Your task to perform on an android device: add a label to a message in the gmail app Image 0: 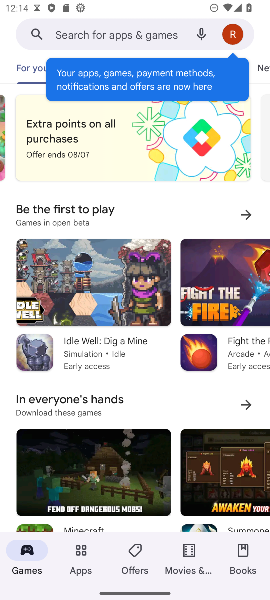
Step 0: press home button
Your task to perform on an android device: add a label to a message in the gmail app Image 1: 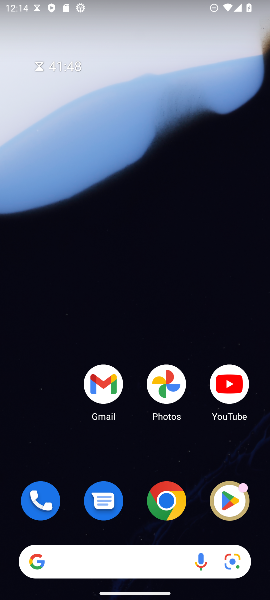
Step 1: drag from (130, 491) to (150, 19)
Your task to perform on an android device: add a label to a message in the gmail app Image 2: 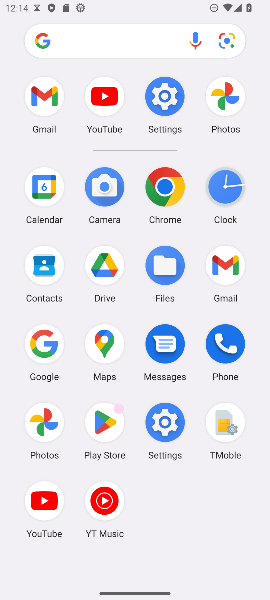
Step 2: click (228, 199)
Your task to perform on an android device: add a label to a message in the gmail app Image 3: 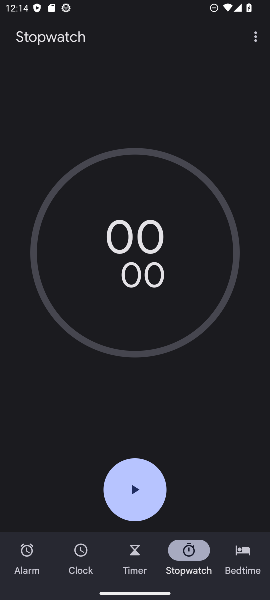
Step 3: press home button
Your task to perform on an android device: add a label to a message in the gmail app Image 4: 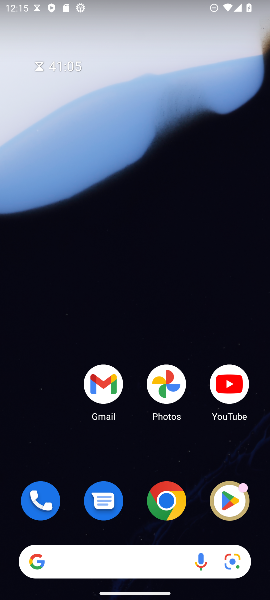
Step 4: click (109, 389)
Your task to perform on an android device: add a label to a message in the gmail app Image 5: 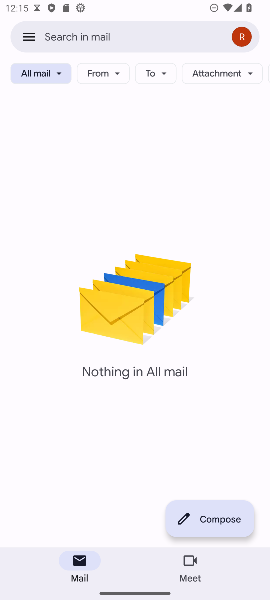
Step 5: task complete